Your task to perform on an android device: Open accessibility settings Image 0: 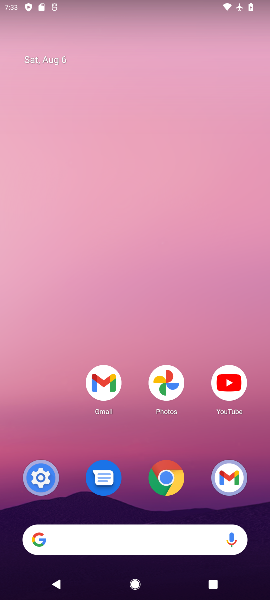
Step 0: press home button
Your task to perform on an android device: Open accessibility settings Image 1: 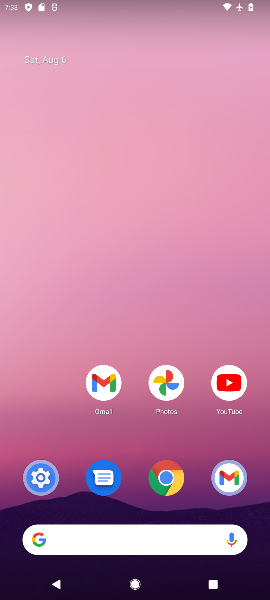
Step 1: drag from (130, 336) to (137, 35)
Your task to perform on an android device: Open accessibility settings Image 2: 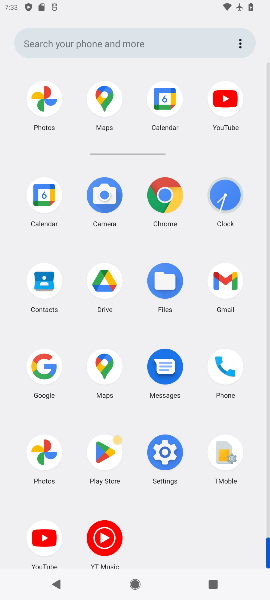
Step 2: click (163, 445)
Your task to perform on an android device: Open accessibility settings Image 3: 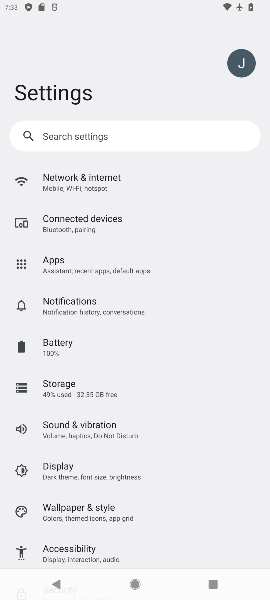
Step 3: click (100, 549)
Your task to perform on an android device: Open accessibility settings Image 4: 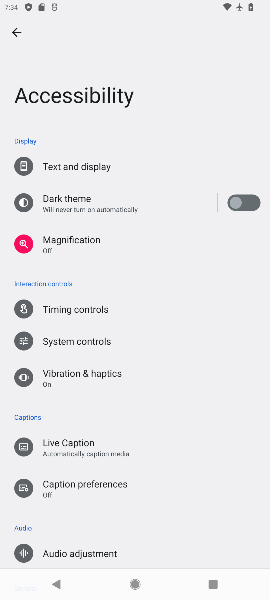
Step 4: task complete